Your task to perform on an android device: turn on airplane mode Image 0: 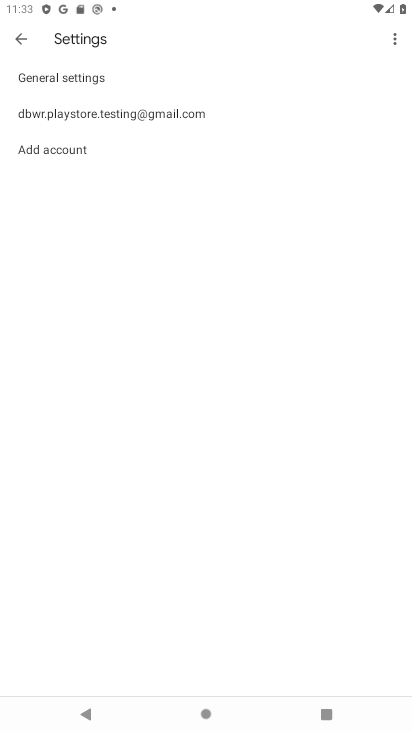
Step 0: press home button
Your task to perform on an android device: turn on airplane mode Image 1: 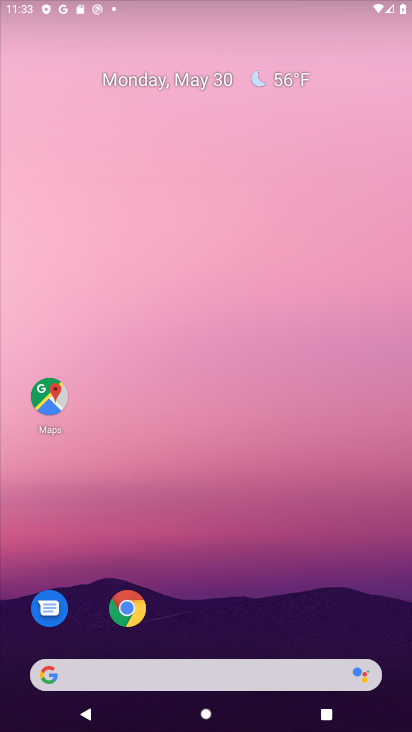
Step 1: drag from (245, 615) to (285, 22)
Your task to perform on an android device: turn on airplane mode Image 2: 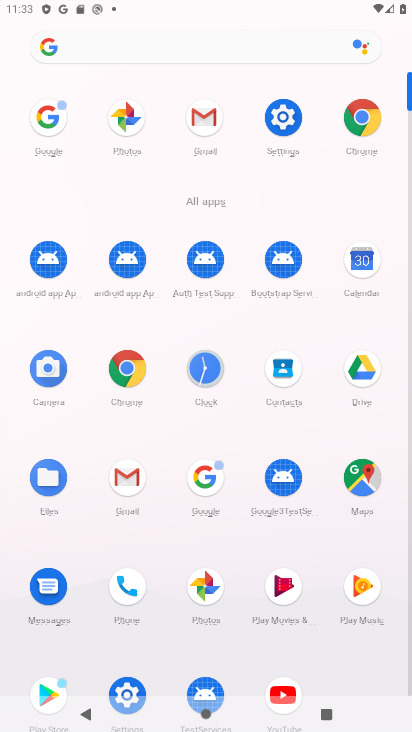
Step 2: click (286, 126)
Your task to perform on an android device: turn on airplane mode Image 3: 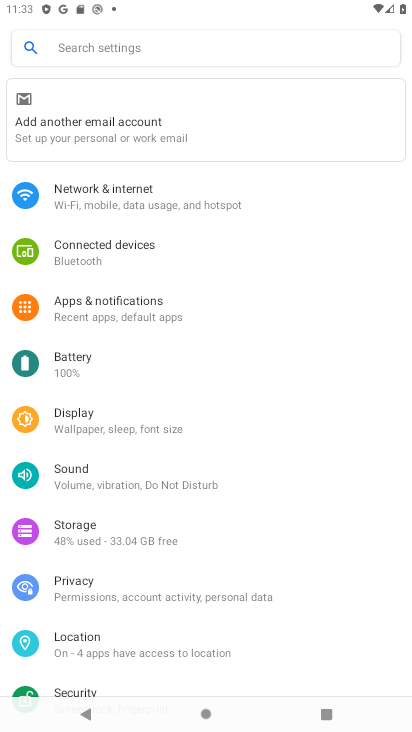
Step 3: click (127, 206)
Your task to perform on an android device: turn on airplane mode Image 4: 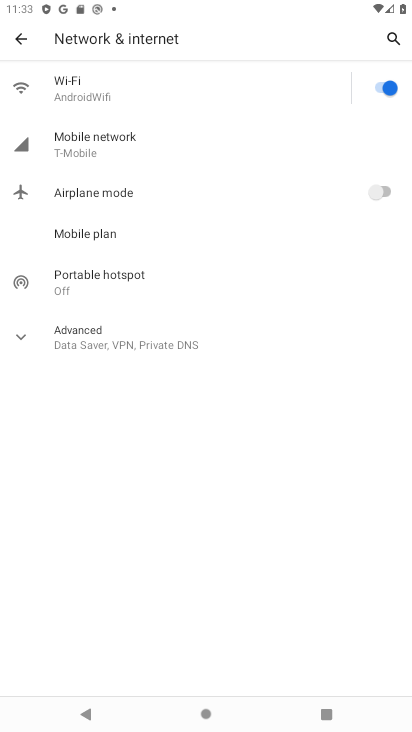
Step 4: click (375, 194)
Your task to perform on an android device: turn on airplane mode Image 5: 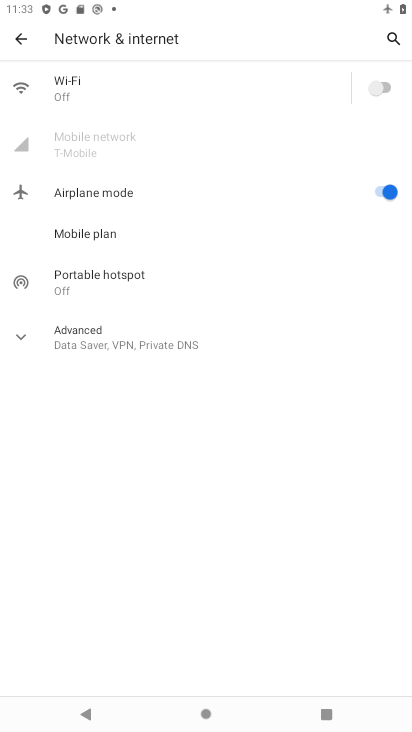
Step 5: task complete